Your task to perform on an android device: Show me recent news Image 0: 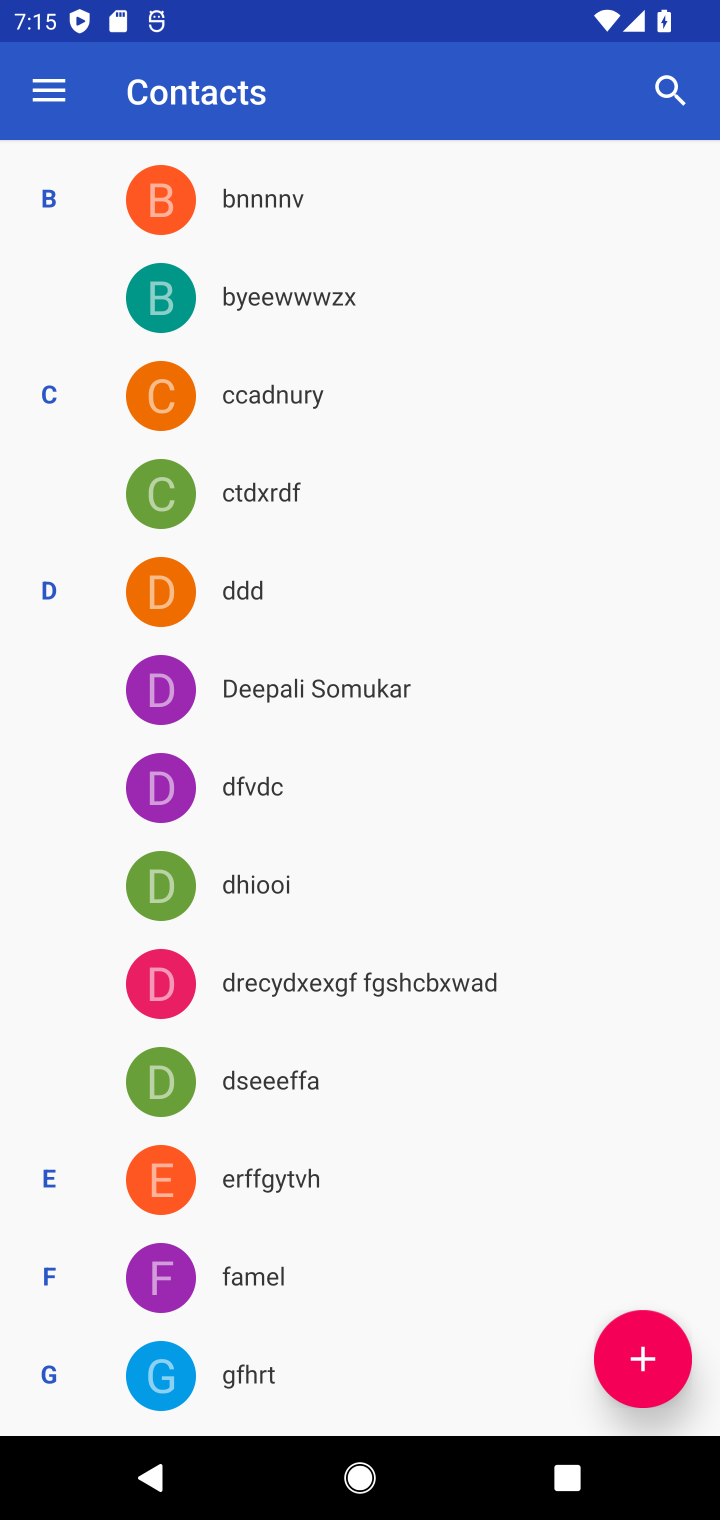
Step 0: press home button
Your task to perform on an android device: Show me recent news Image 1: 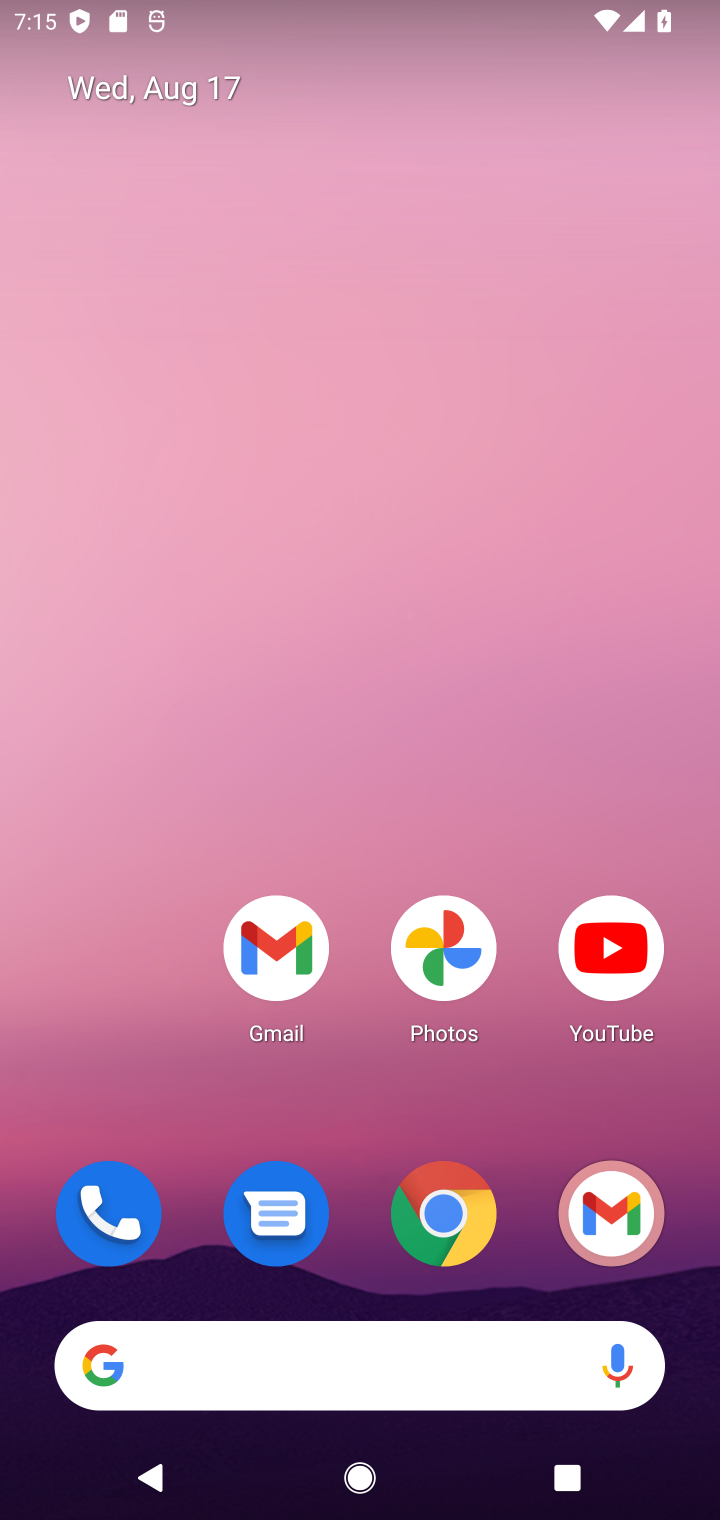
Step 1: click (379, 1360)
Your task to perform on an android device: Show me recent news Image 2: 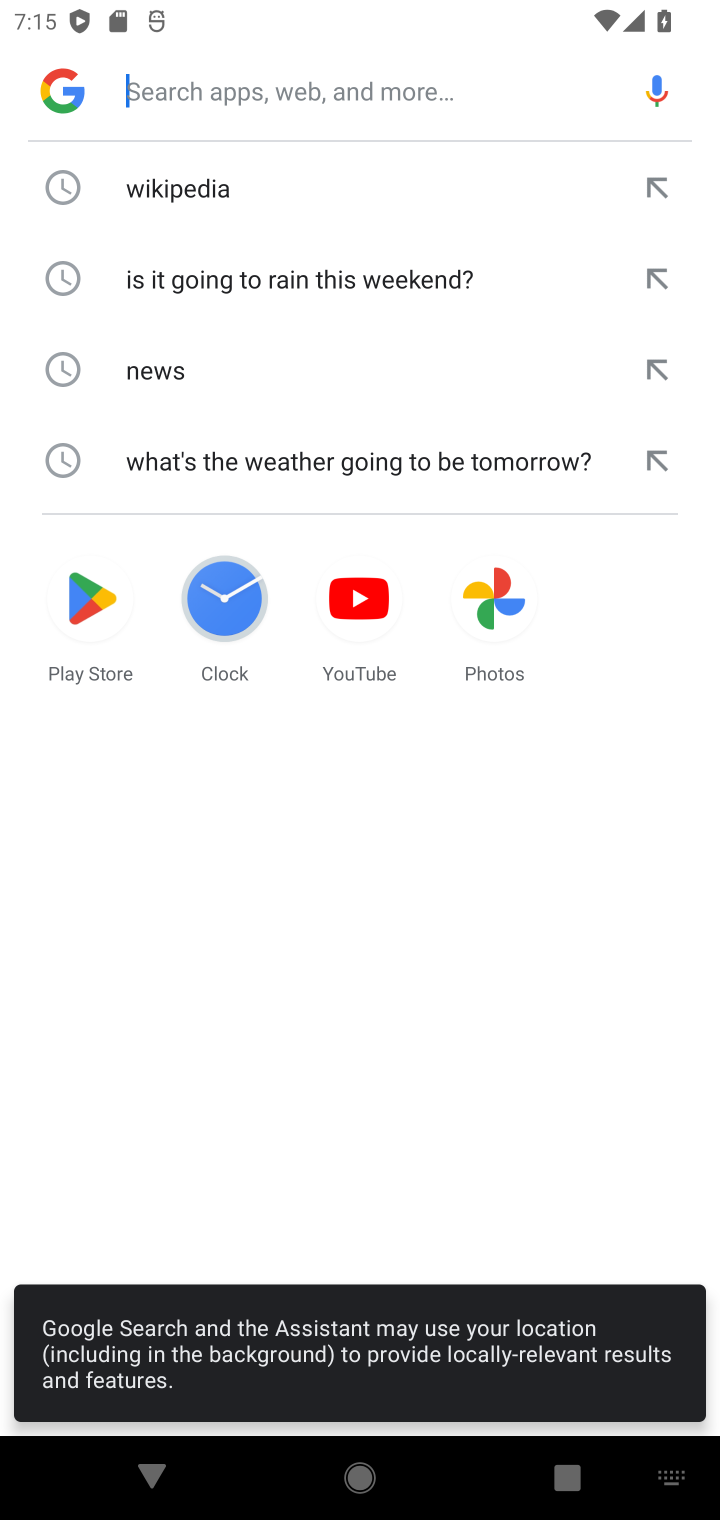
Step 2: click (280, 344)
Your task to perform on an android device: Show me recent news Image 3: 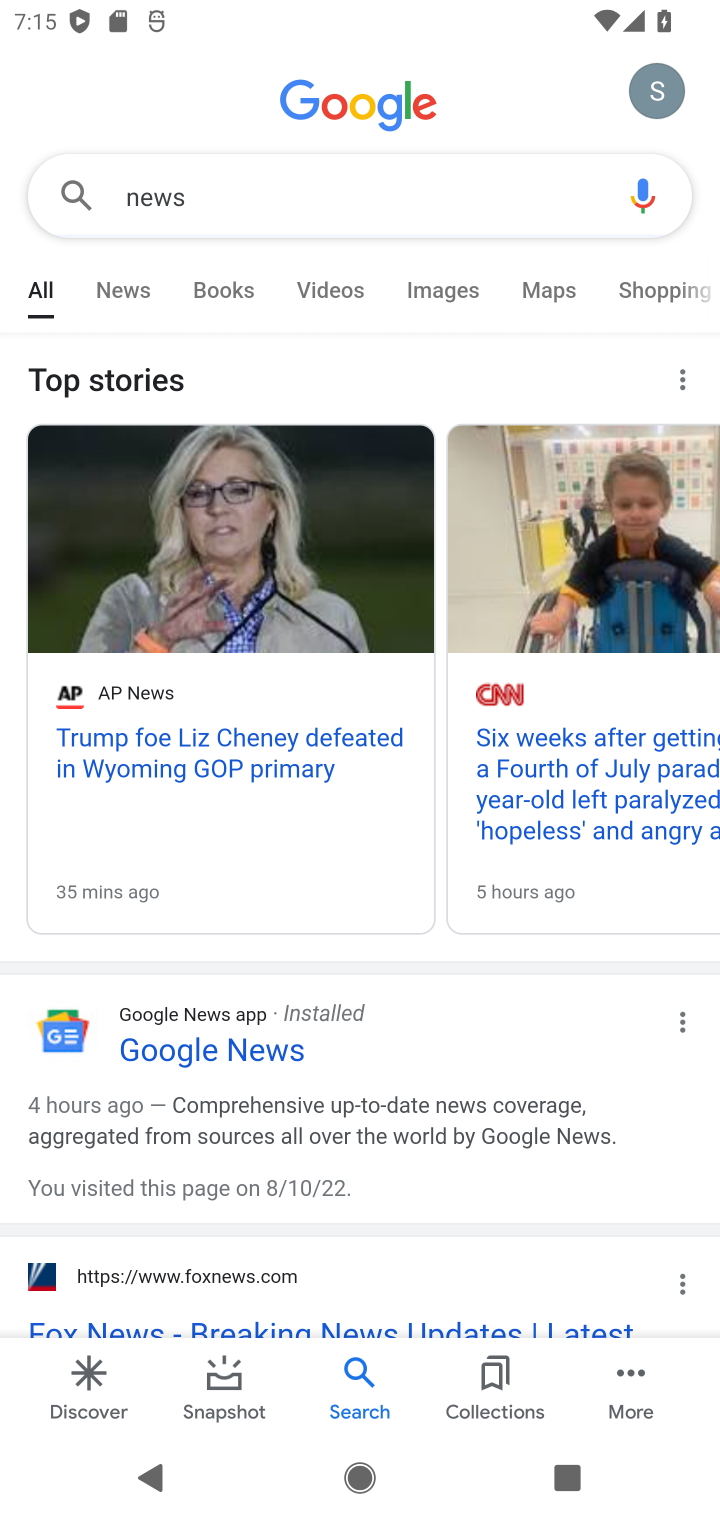
Step 3: task complete